Your task to perform on an android device: search for starred emails in the gmail app Image 0: 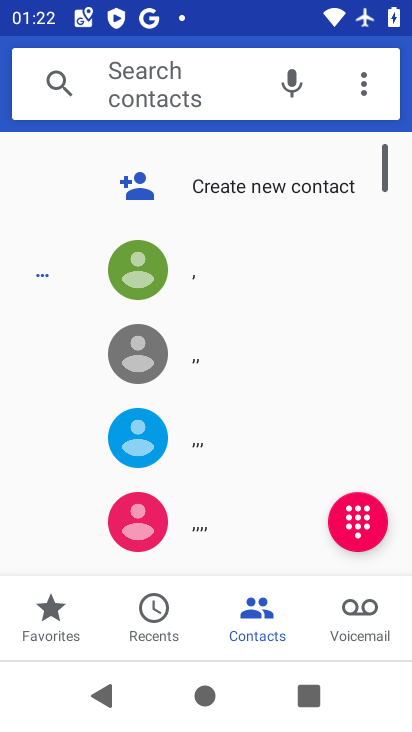
Step 0: press home button
Your task to perform on an android device: search for starred emails in the gmail app Image 1: 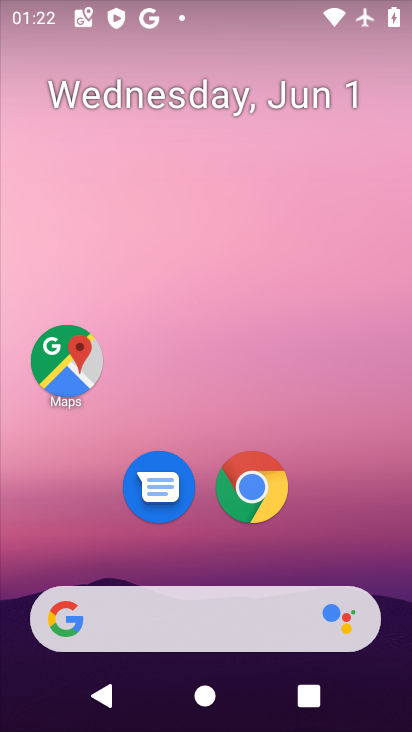
Step 1: drag from (325, 515) to (338, 253)
Your task to perform on an android device: search for starred emails in the gmail app Image 2: 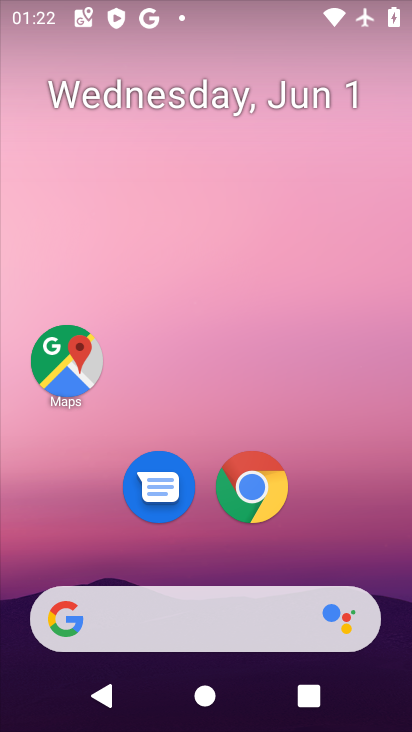
Step 2: drag from (300, 542) to (301, 214)
Your task to perform on an android device: search for starred emails in the gmail app Image 3: 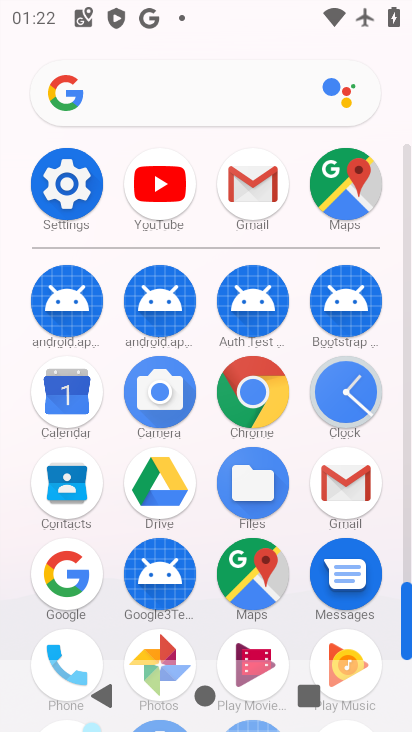
Step 3: click (348, 486)
Your task to perform on an android device: search for starred emails in the gmail app Image 4: 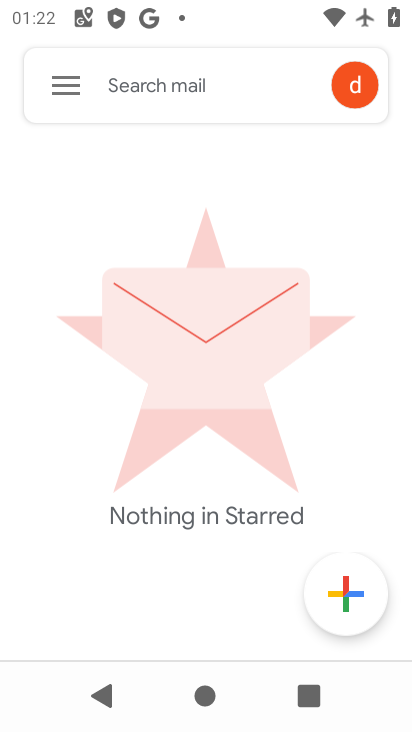
Step 4: click (68, 78)
Your task to perform on an android device: search for starred emails in the gmail app Image 5: 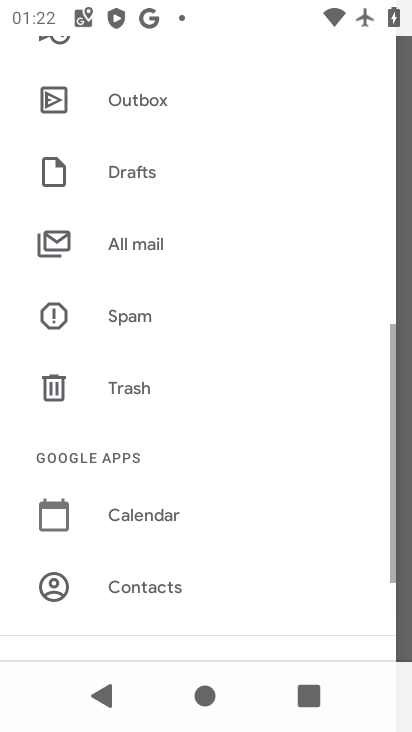
Step 5: task complete